Your task to perform on an android device: find snoozed emails in the gmail app Image 0: 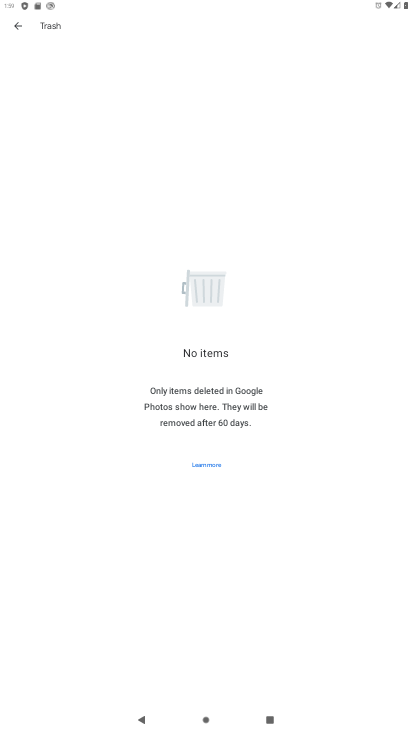
Step 0: press home button
Your task to perform on an android device: find snoozed emails in the gmail app Image 1: 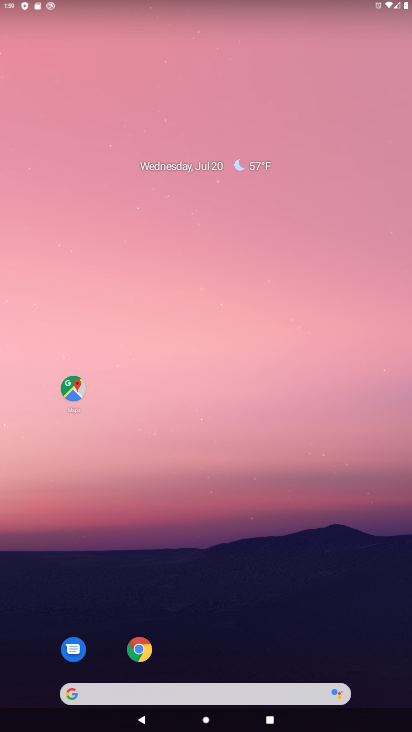
Step 1: click (233, 104)
Your task to perform on an android device: find snoozed emails in the gmail app Image 2: 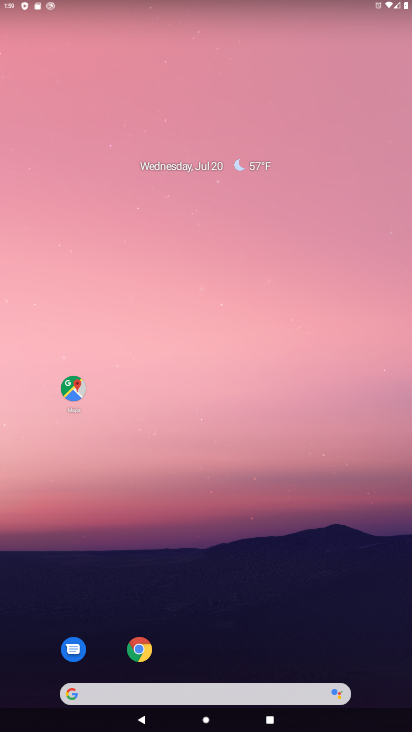
Step 2: drag from (249, 556) to (247, 167)
Your task to perform on an android device: find snoozed emails in the gmail app Image 3: 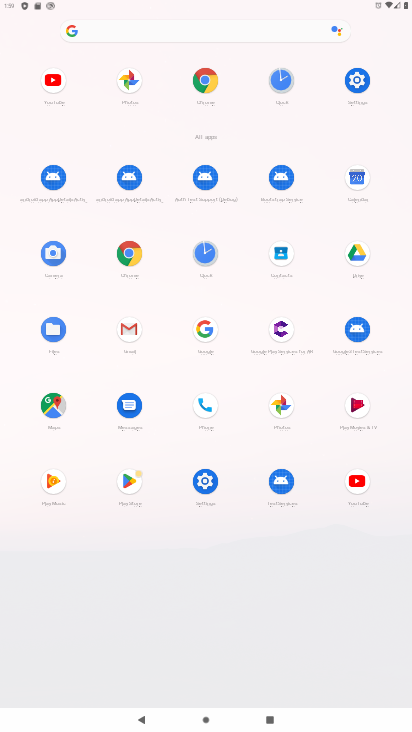
Step 3: click (134, 338)
Your task to perform on an android device: find snoozed emails in the gmail app Image 4: 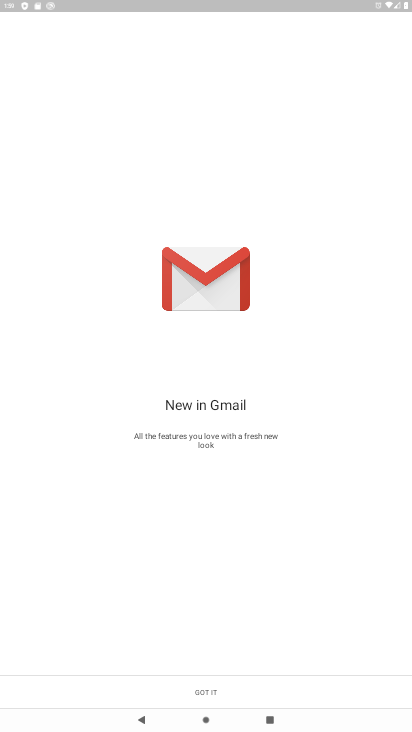
Step 4: click (189, 693)
Your task to perform on an android device: find snoozed emails in the gmail app Image 5: 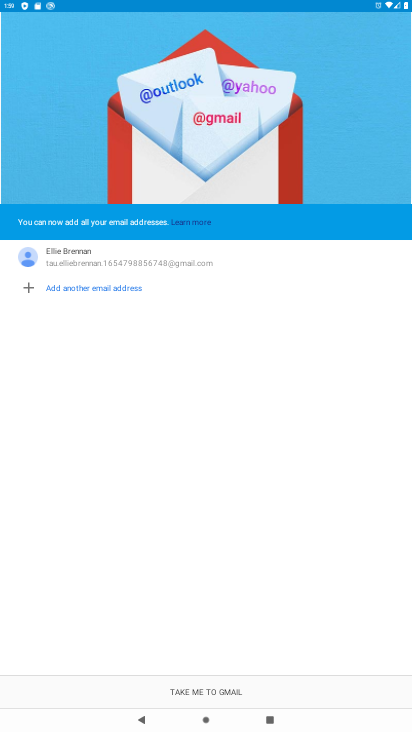
Step 5: click (178, 703)
Your task to perform on an android device: find snoozed emails in the gmail app Image 6: 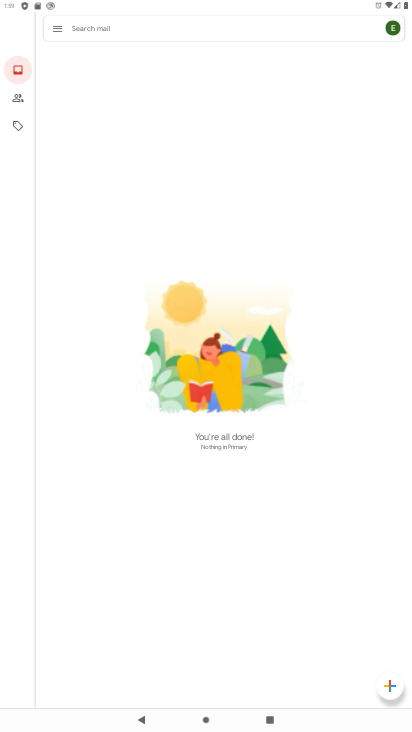
Step 6: task complete